Your task to perform on an android device: add a label to a message in the gmail app Image 0: 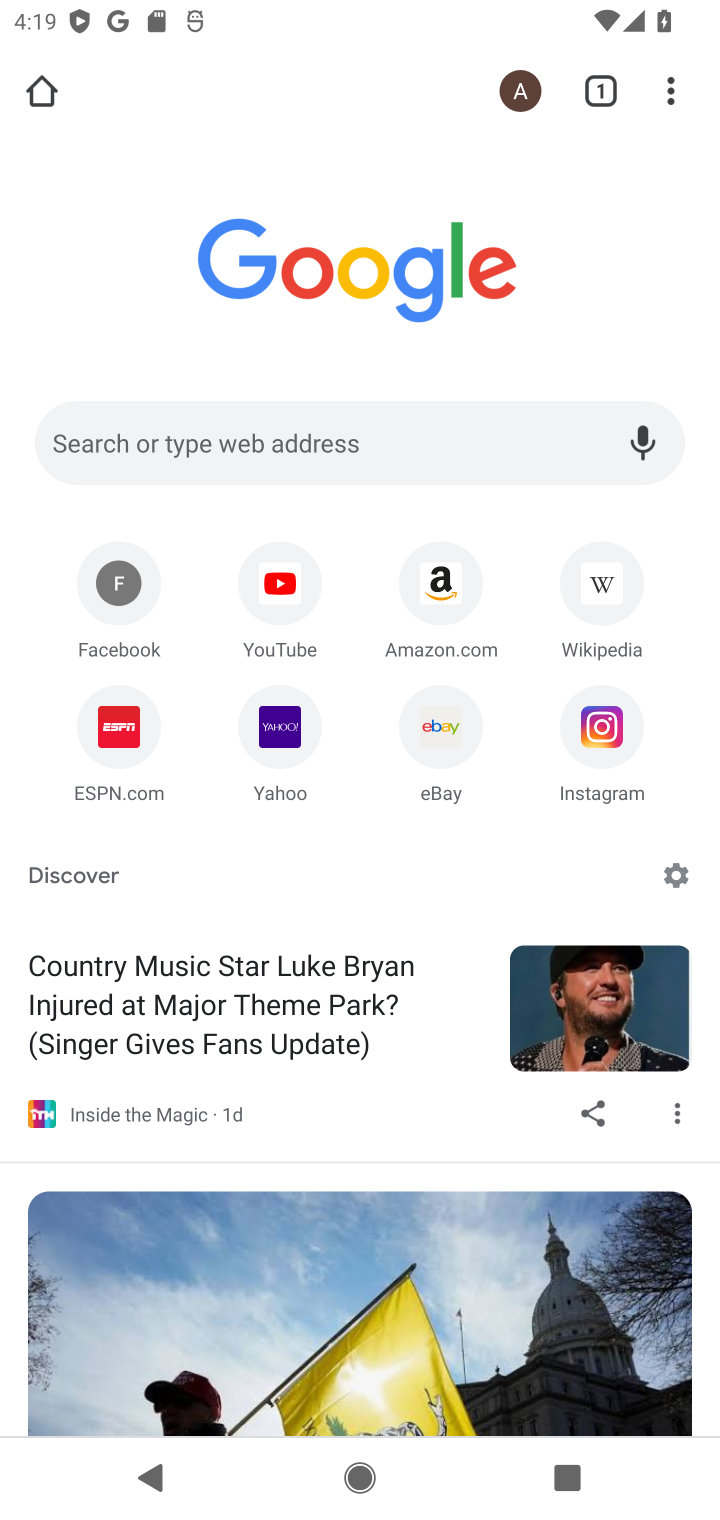
Step 0: press home button
Your task to perform on an android device: add a label to a message in the gmail app Image 1: 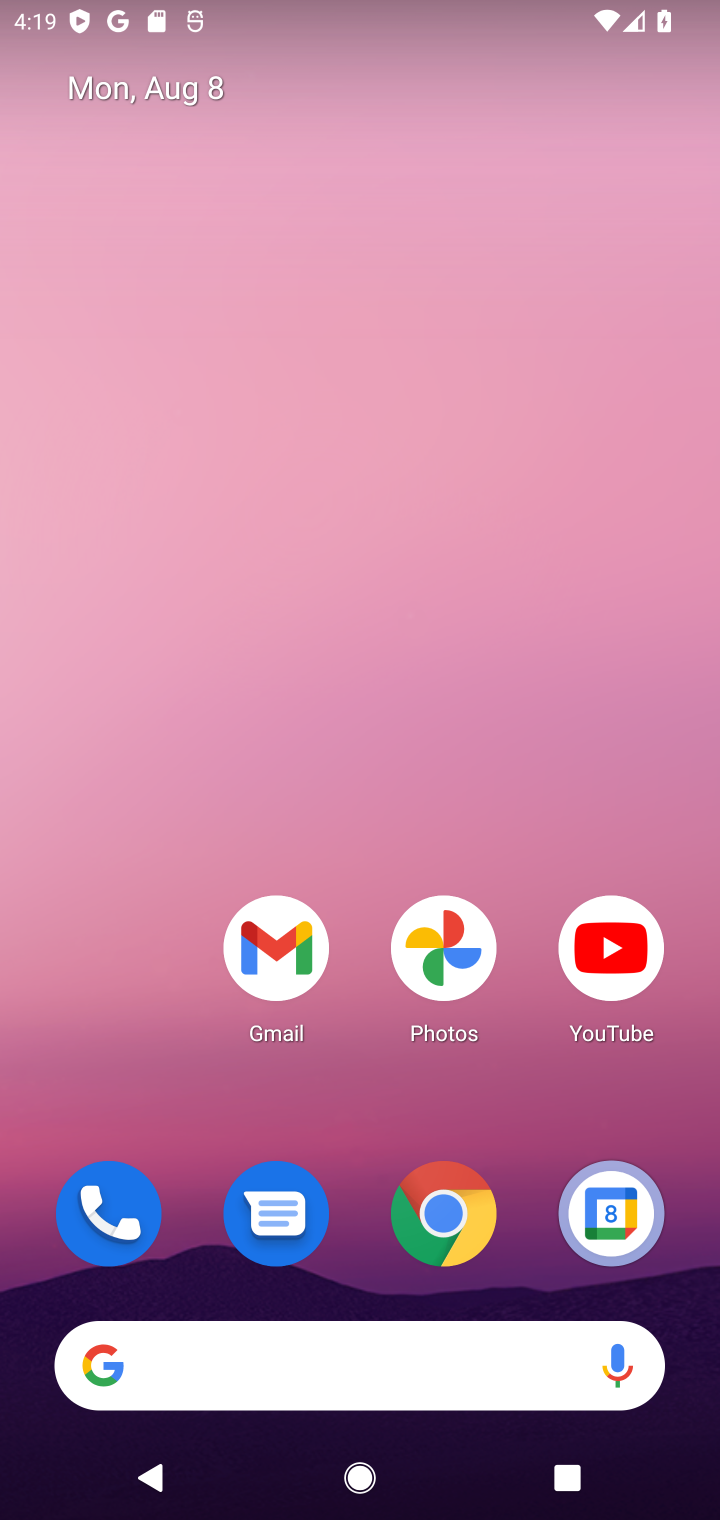
Step 1: click (267, 946)
Your task to perform on an android device: add a label to a message in the gmail app Image 2: 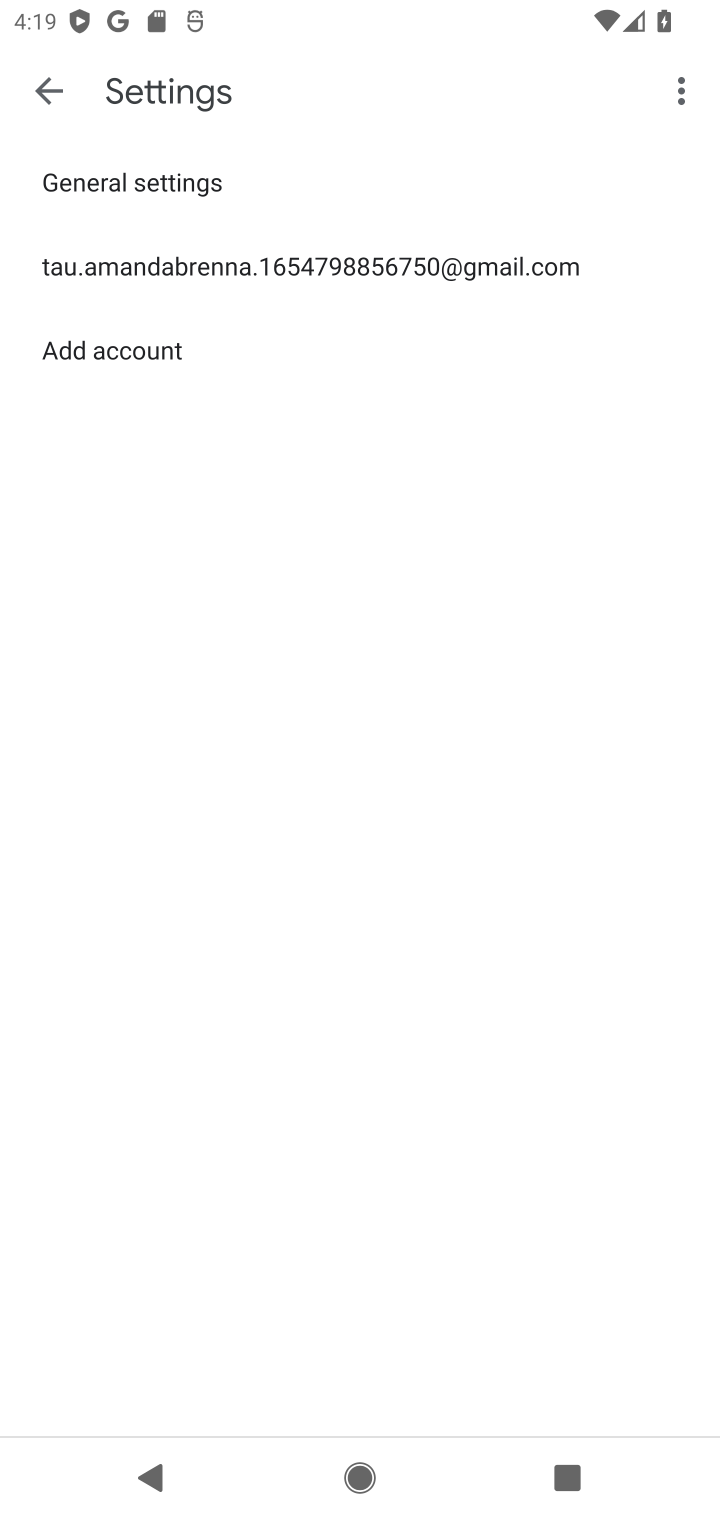
Step 2: click (34, 102)
Your task to perform on an android device: add a label to a message in the gmail app Image 3: 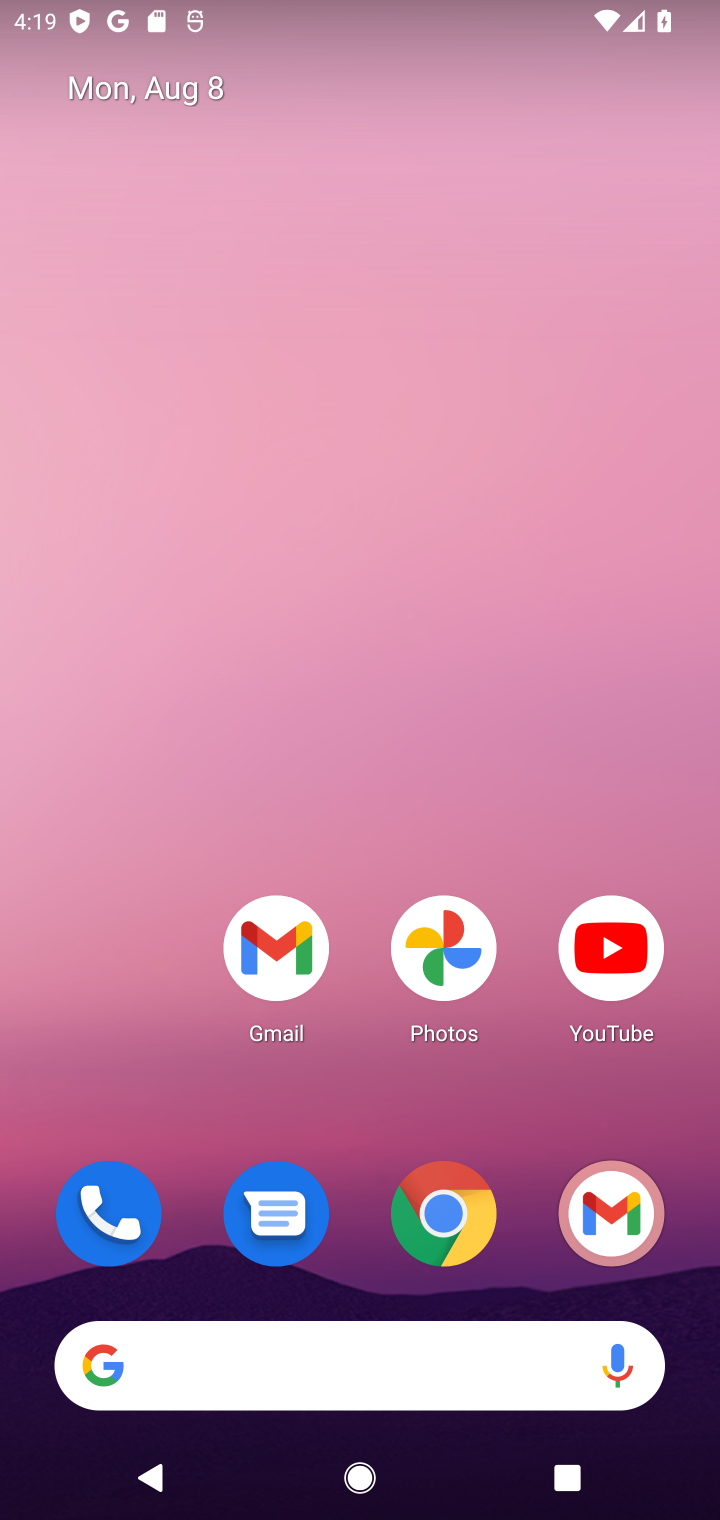
Step 3: click (262, 919)
Your task to perform on an android device: add a label to a message in the gmail app Image 4: 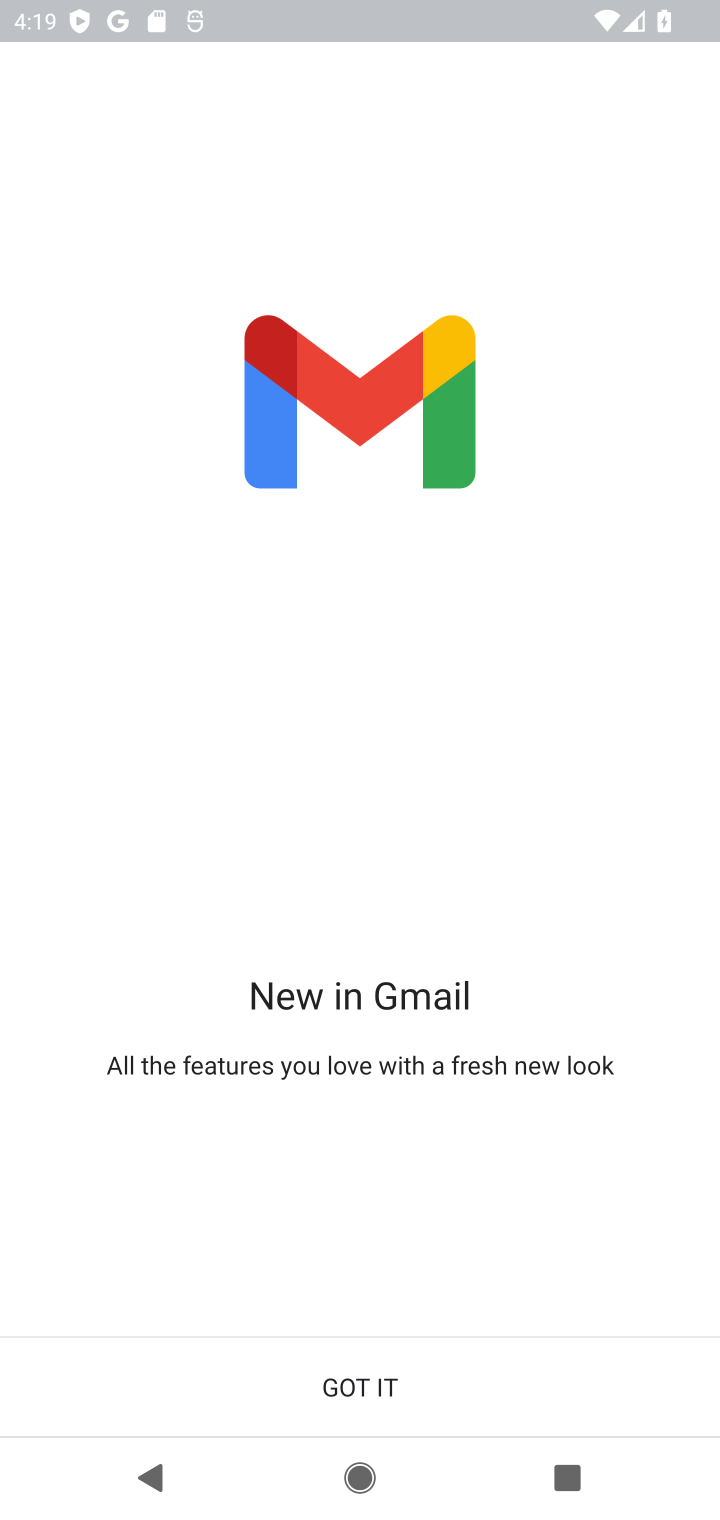
Step 4: click (263, 1386)
Your task to perform on an android device: add a label to a message in the gmail app Image 5: 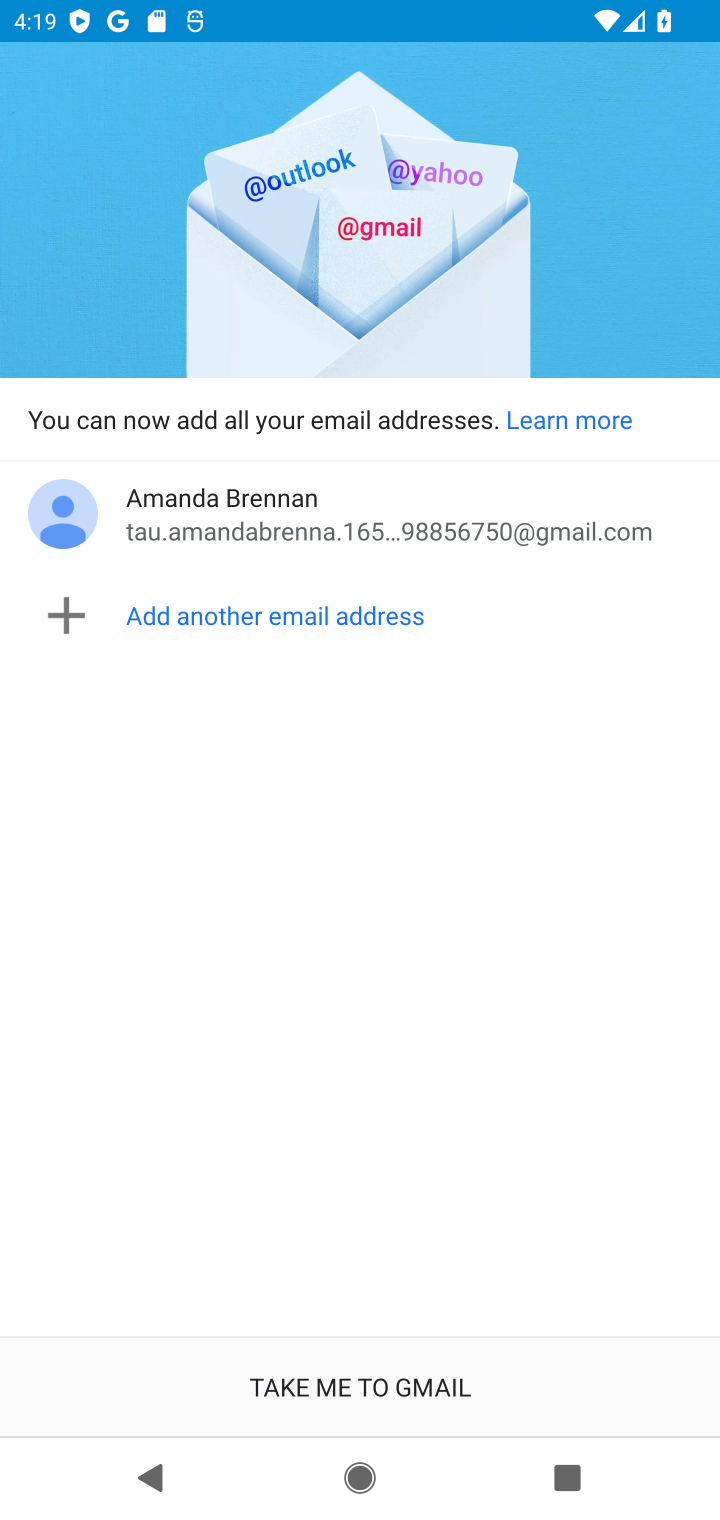
Step 5: click (263, 1386)
Your task to perform on an android device: add a label to a message in the gmail app Image 6: 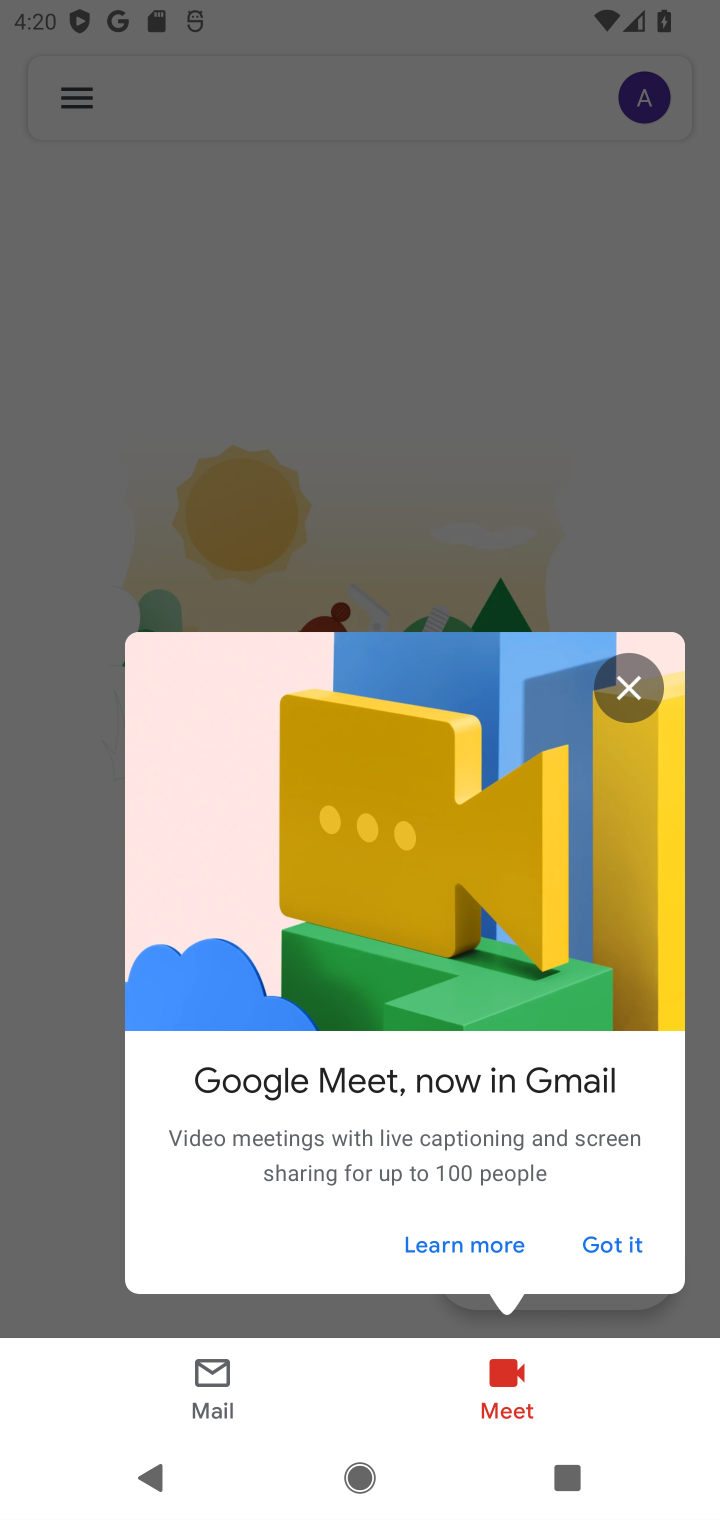
Step 6: click (74, 92)
Your task to perform on an android device: add a label to a message in the gmail app Image 7: 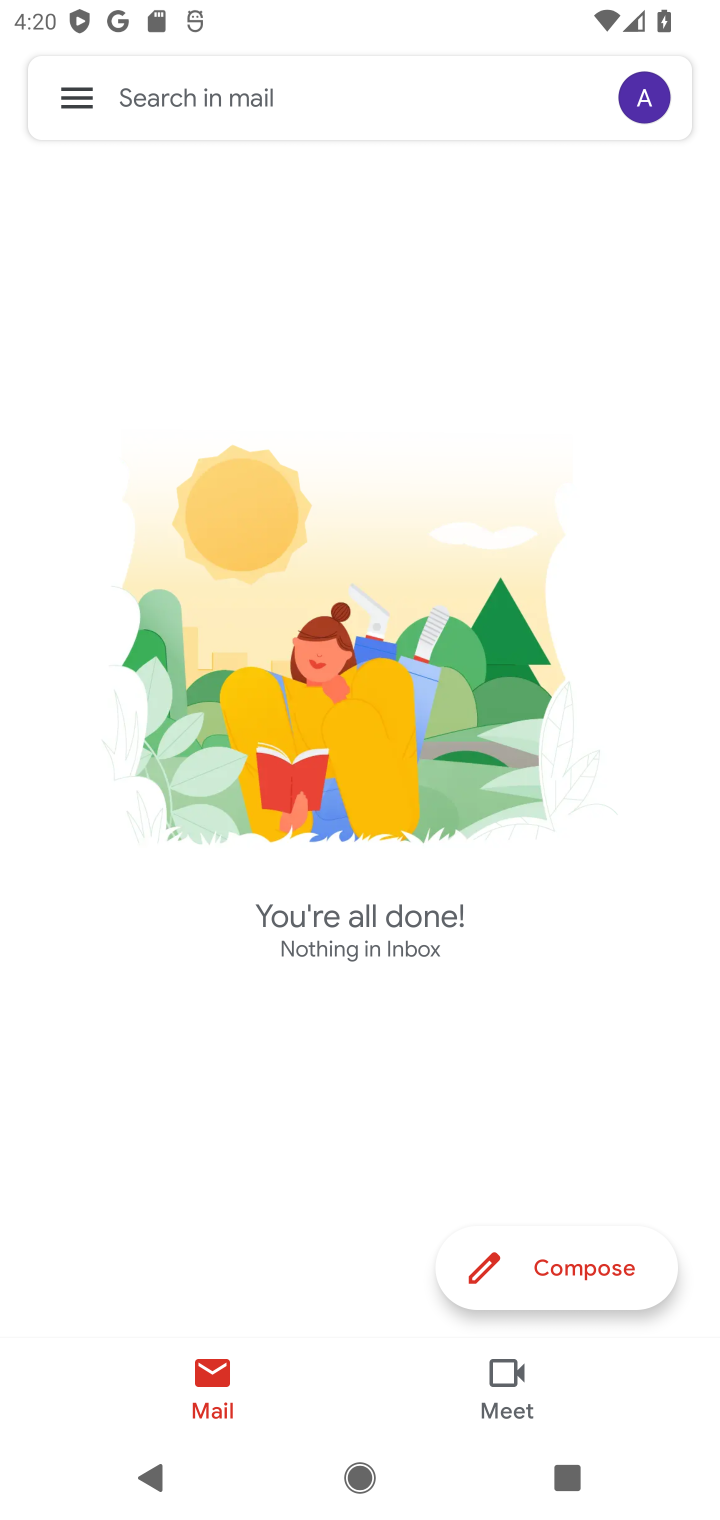
Step 7: click (74, 92)
Your task to perform on an android device: add a label to a message in the gmail app Image 8: 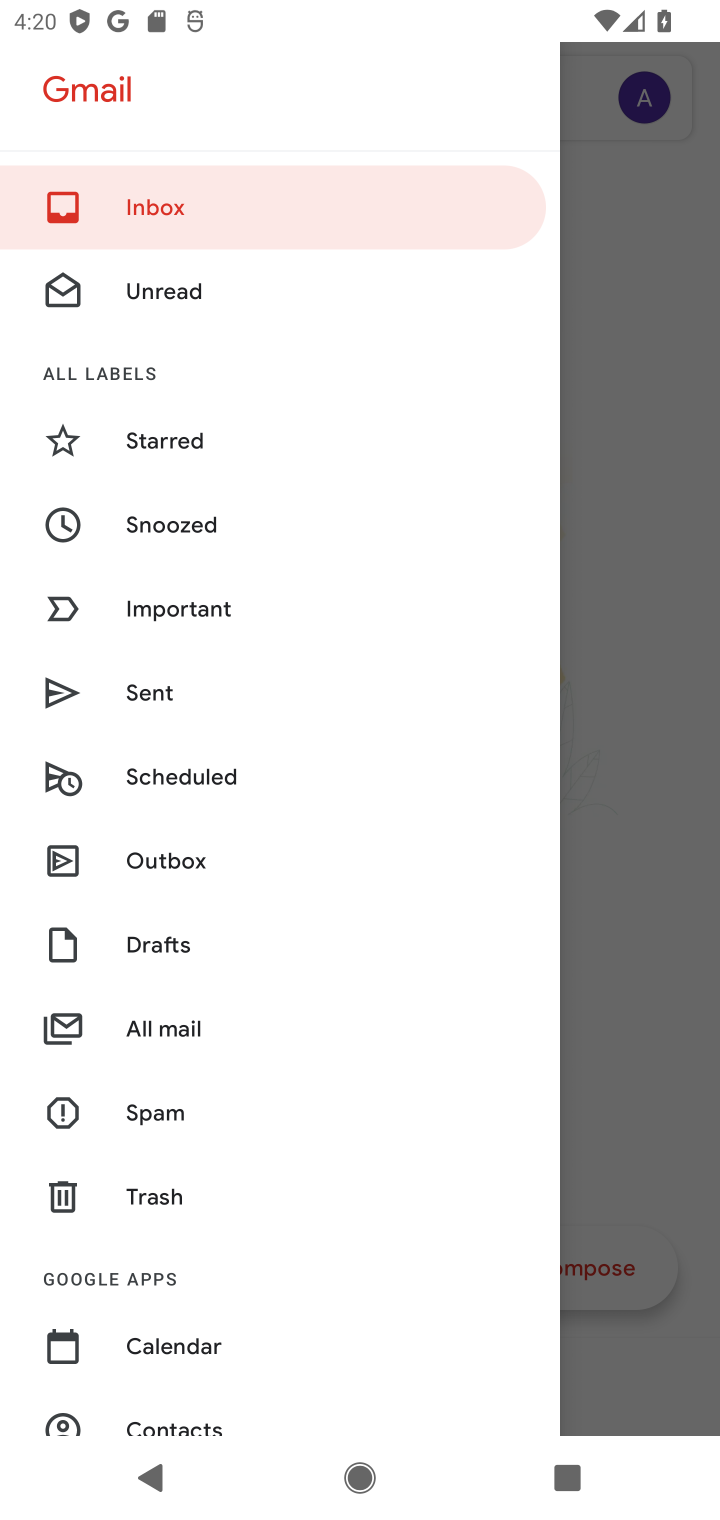
Step 8: click (205, 1018)
Your task to perform on an android device: add a label to a message in the gmail app Image 9: 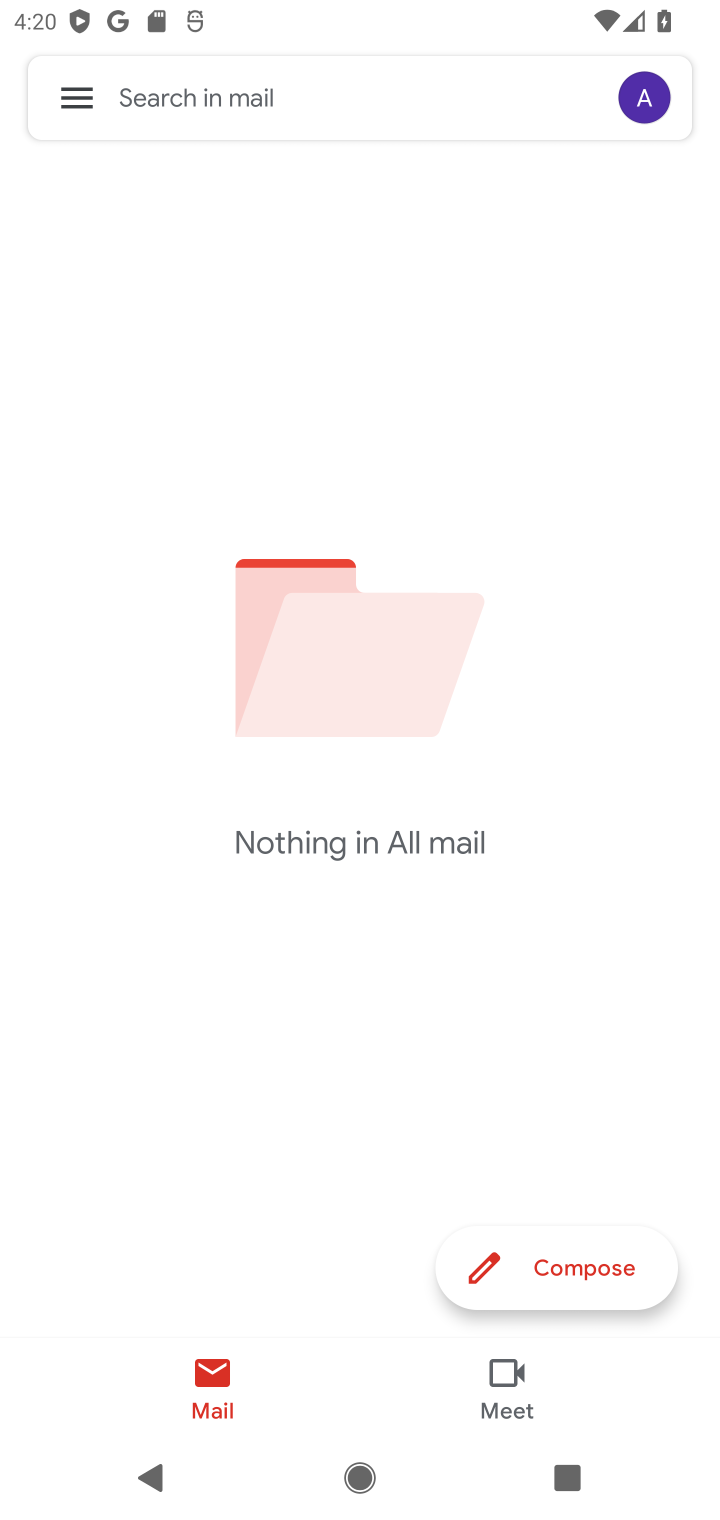
Step 9: task complete